Your task to perform on an android device: find which apps use the phone's location Image 0: 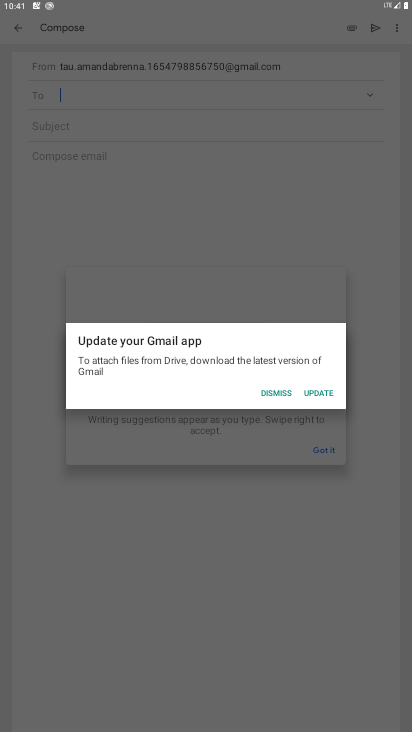
Step 0: press home button
Your task to perform on an android device: find which apps use the phone's location Image 1: 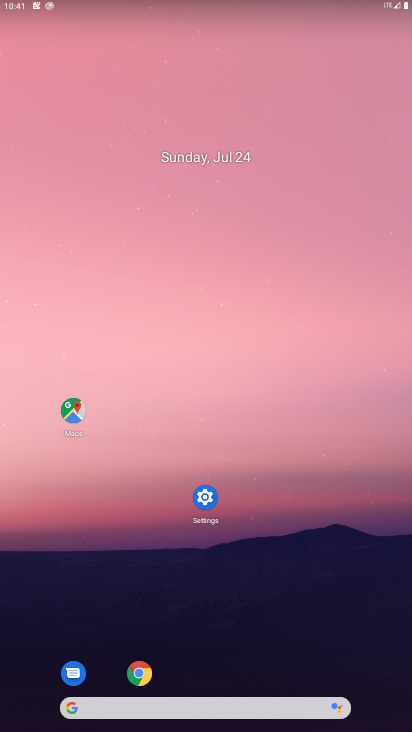
Step 1: click (203, 499)
Your task to perform on an android device: find which apps use the phone's location Image 2: 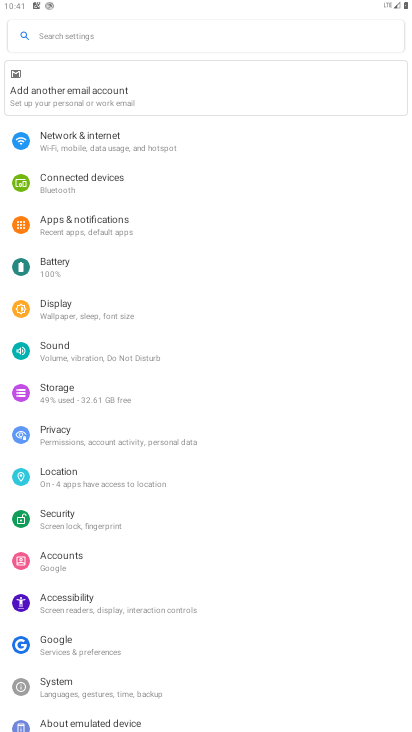
Step 2: click (73, 480)
Your task to perform on an android device: find which apps use the phone's location Image 3: 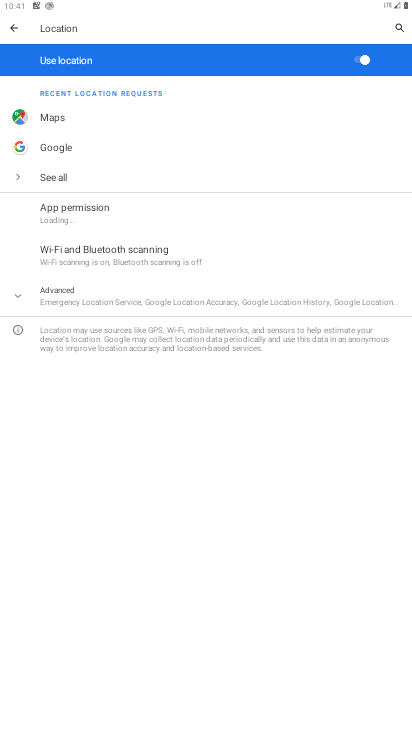
Step 3: task complete